Your task to perform on an android device: change notification settings in the gmail app Image 0: 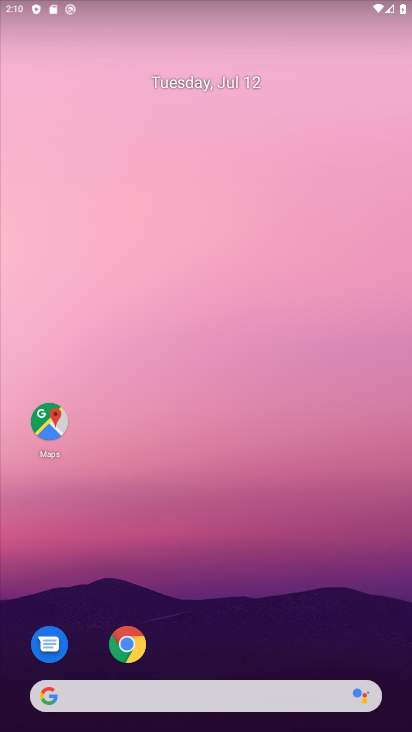
Step 0: drag from (290, 614) to (332, 60)
Your task to perform on an android device: change notification settings in the gmail app Image 1: 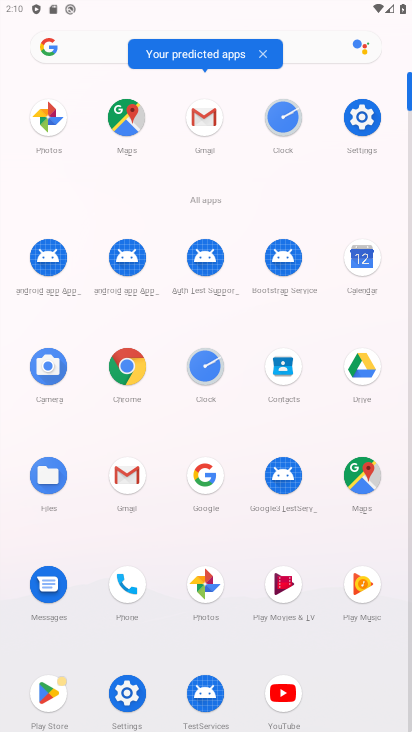
Step 1: click (132, 471)
Your task to perform on an android device: change notification settings in the gmail app Image 2: 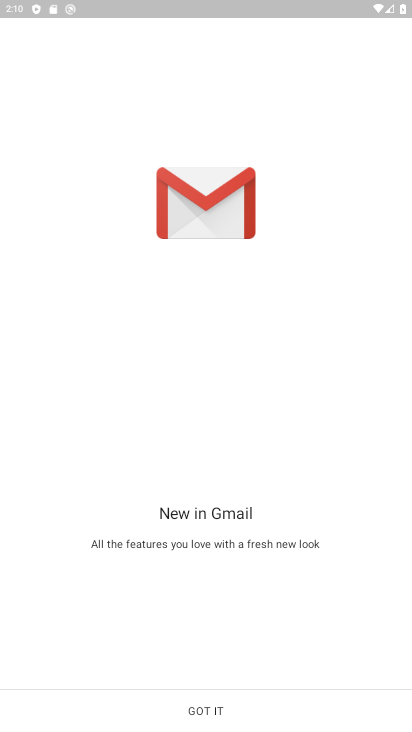
Step 2: press back button
Your task to perform on an android device: change notification settings in the gmail app Image 3: 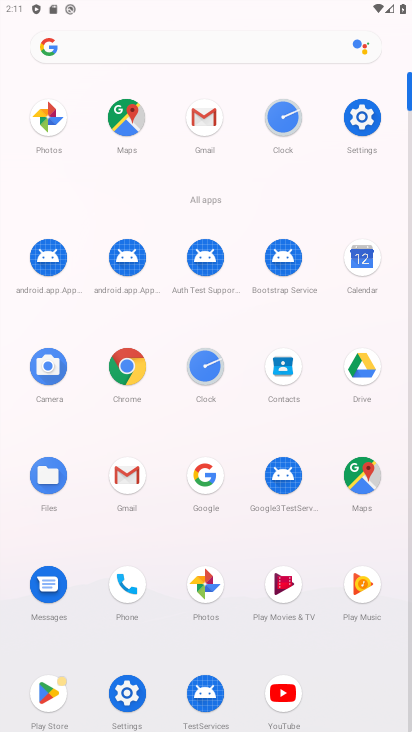
Step 3: click (119, 471)
Your task to perform on an android device: change notification settings in the gmail app Image 4: 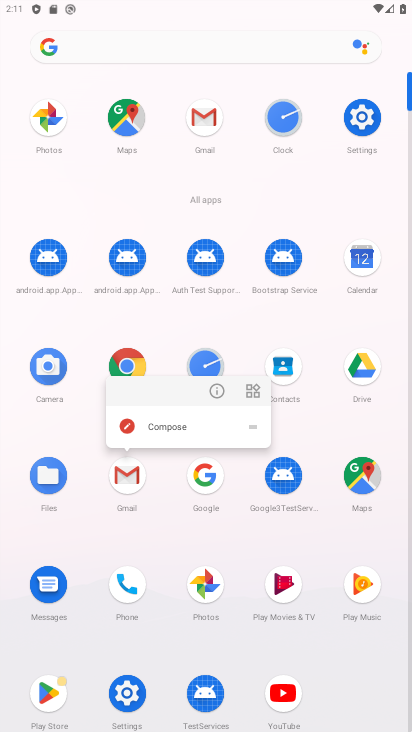
Step 4: click (219, 387)
Your task to perform on an android device: change notification settings in the gmail app Image 5: 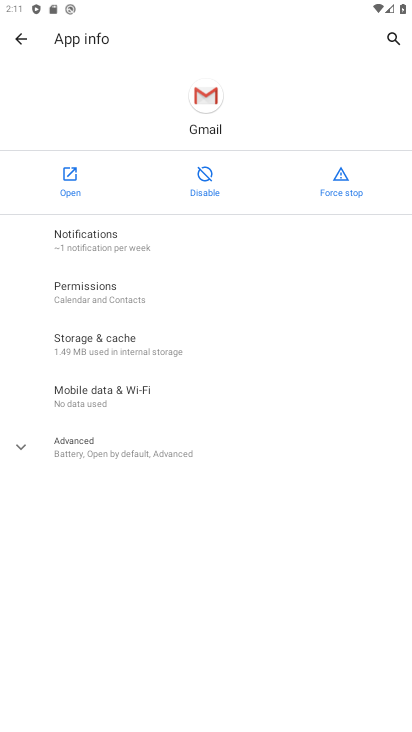
Step 5: click (105, 234)
Your task to perform on an android device: change notification settings in the gmail app Image 6: 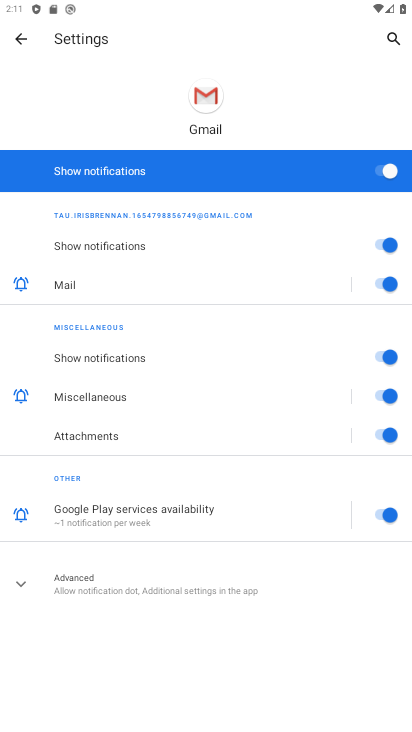
Step 6: click (385, 279)
Your task to perform on an android device: change notification settings in the gmail app Image 7: 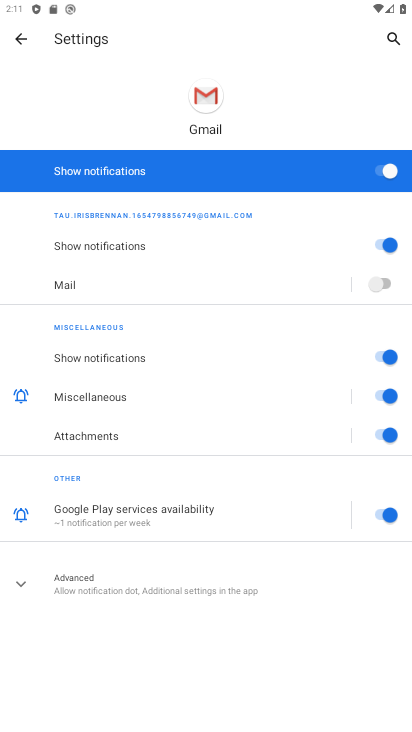
Step 7: task complete